Your task to perform on an android device: open the mobile data screen to see how much data has been used Image 0: 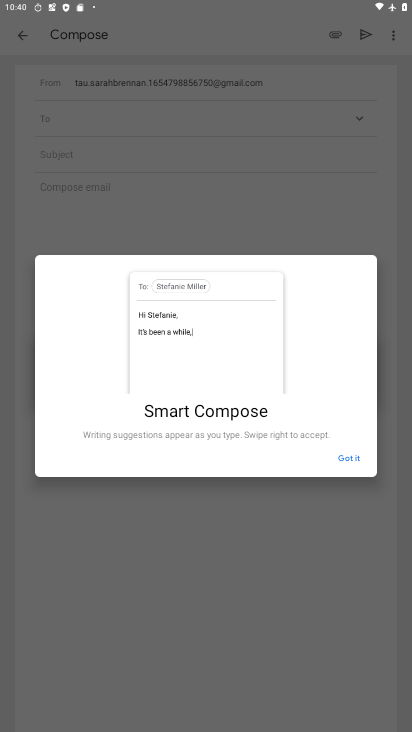
Step 0: press home button
Your task to perform on an android device: open the mobile data screen to see how much data has been used Image 1: 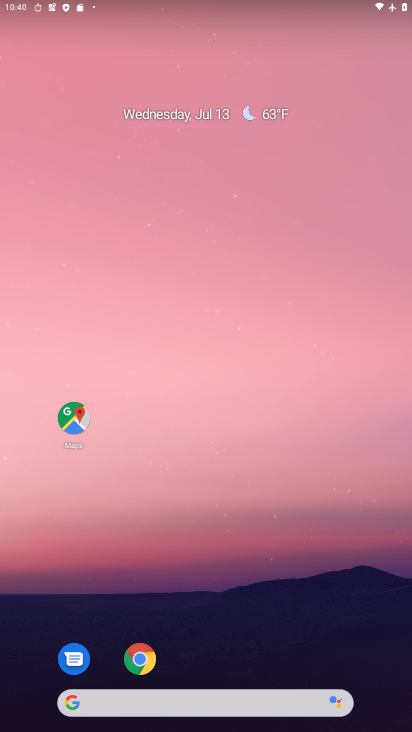
Step 1: drag from (296, 632) to (289, 121)
Your task to perform on an android device: open the mobile data screen to see how much data has been used Image 2: 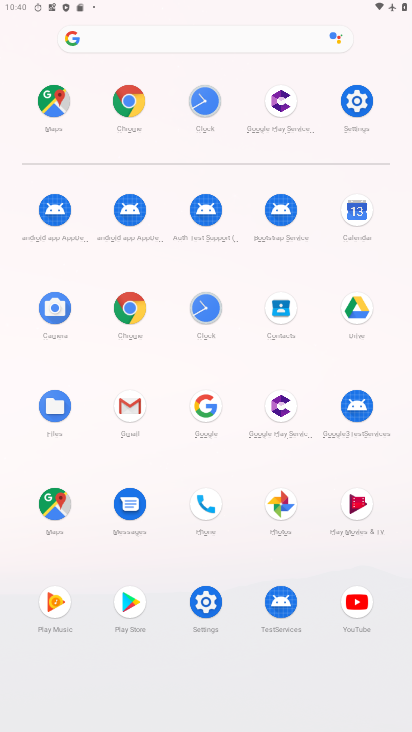
Step 2: click (359, 101)
Your task to perform on an android device: open the mobile data screen to see how much data has been used Image 3: 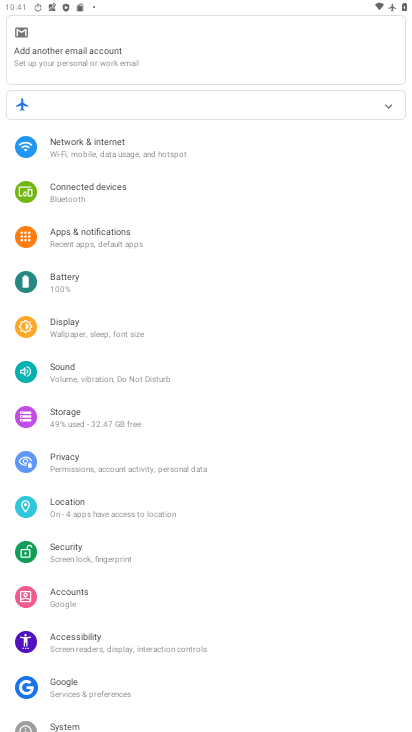
Step 3: click (84, 155)
Your task to perform on an android device: open the mobile data screen to see how much data has been used Image 4: 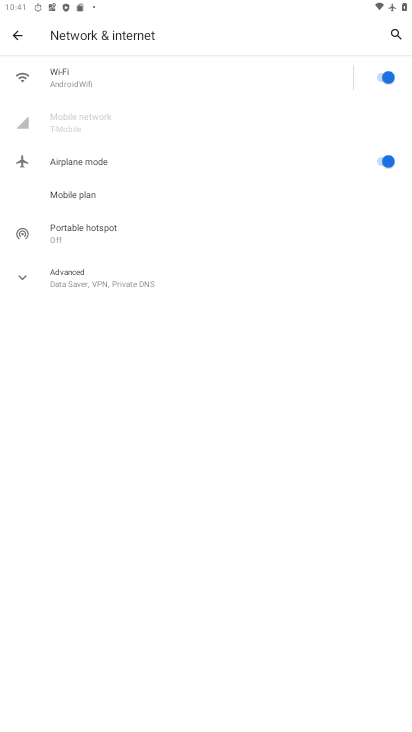
Step 4: click (133, 122)
Your task to perform on an android device: open the mobile data screen to see how much data has been used Image 5: 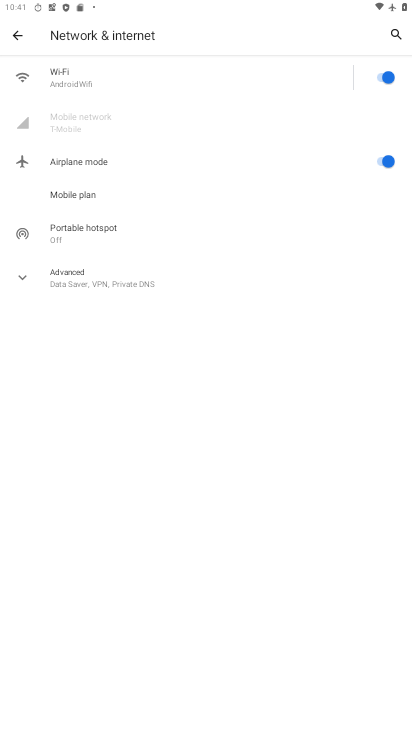
Step 5: click (133, 122)
Your task to perform on an android device: open the mobile data screen to see how much data has been used Image 6: 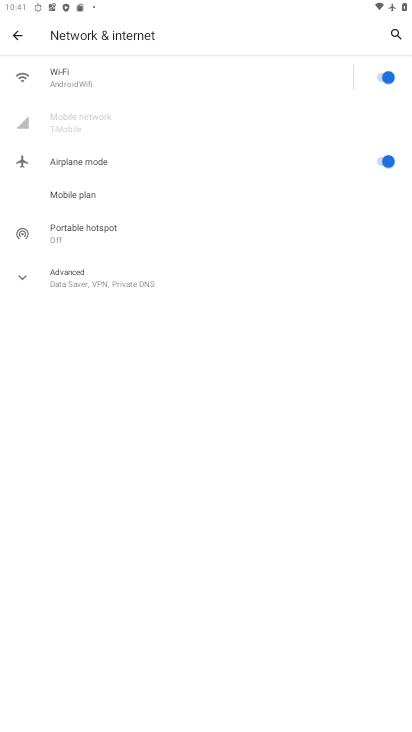
Step 6: click (133, 122)
Your task to perform on an android device: open the mobile data screen to see how much data has been used Image 7: 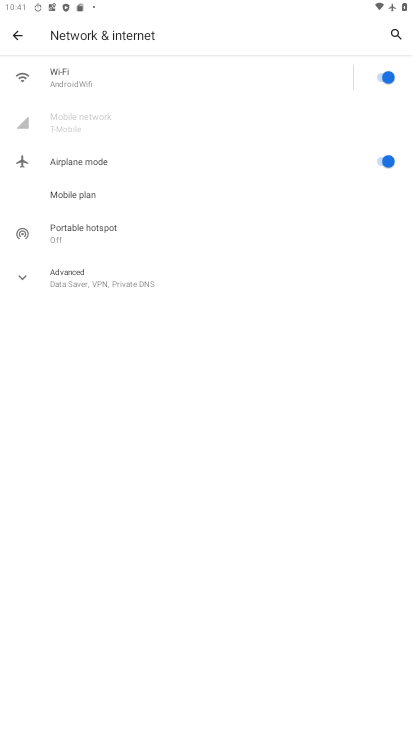
Step 7: task complete